Your task to perform on an android device: turn off priority inbox in the gmail app Image 0: 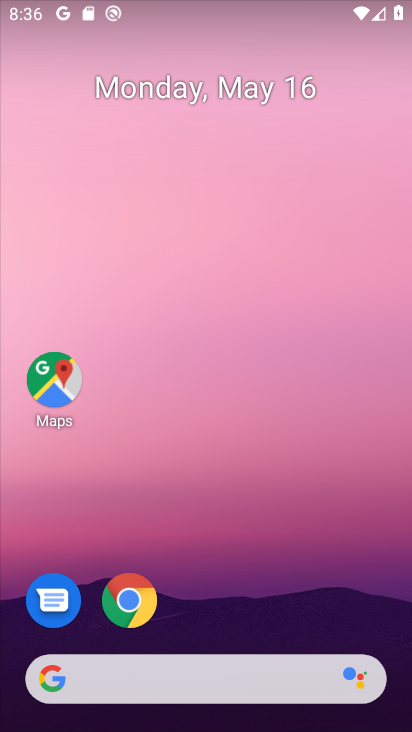
Step 0: drag from (317, 670) to (209, 124)
Your task to perform on an android device: turn off priority inbox in the gmail app Image 1: 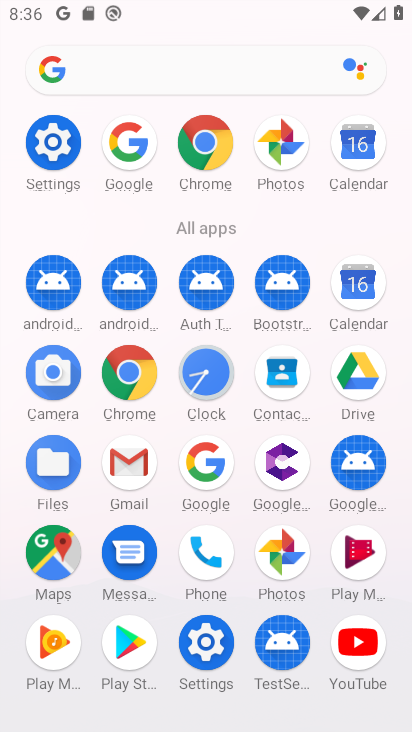
Step 1: click (122, 471)
Your task to perform on an android device: turn off priority inbox in the gmail app Image 2: 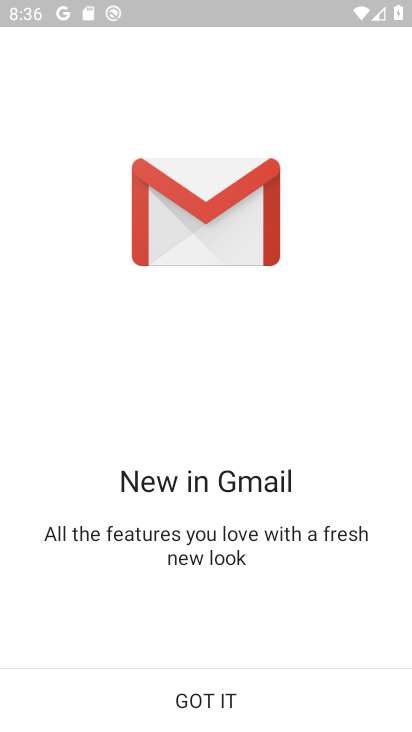
Step 2: click (216, 693)
Your task to perform on an android device: turn off priority inbox in the gmail app Image 3: 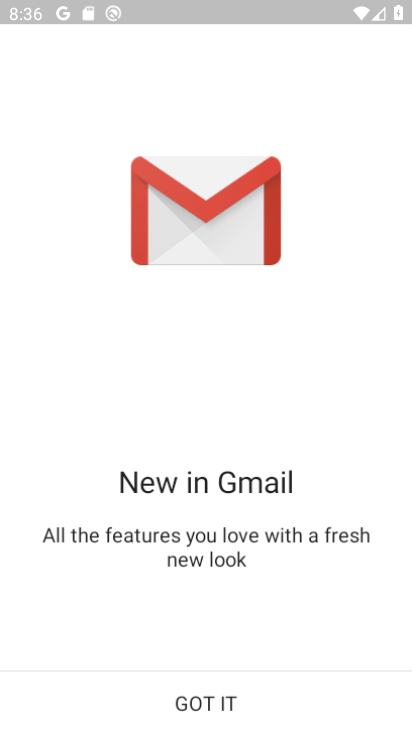
Step 3: click (217, 692)
Your task to perform on an android device: turn off priority inbox in the gmail app Image 4: 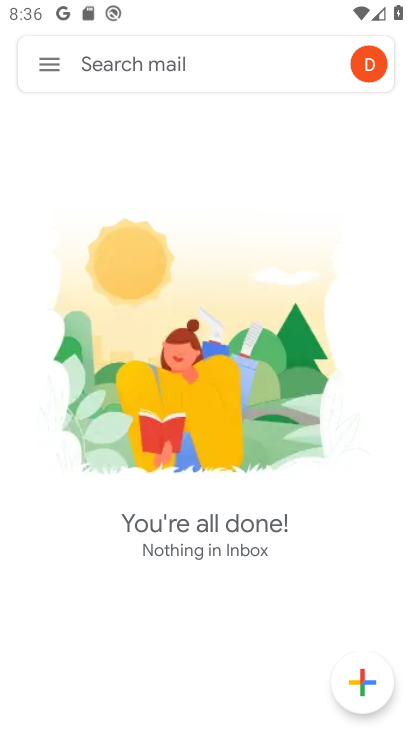
Step 4: press back button
Your task to perform on an android device: turn off priority inbox in the gmail app Image 5: 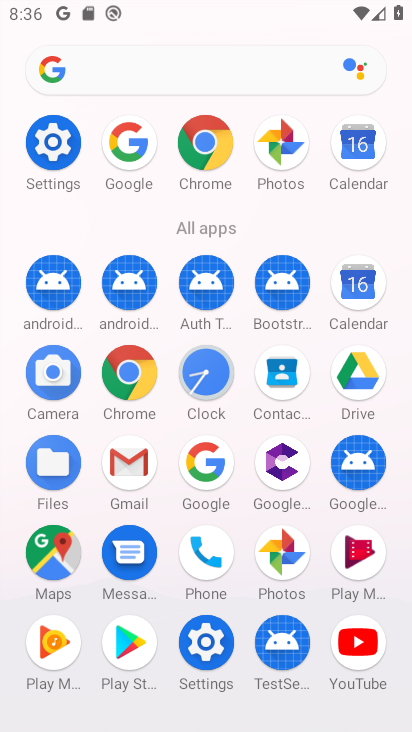
Step 5: click (141, 472)
Your task to perform on an android device: turn off priority inbox in the gmail app Image 6: 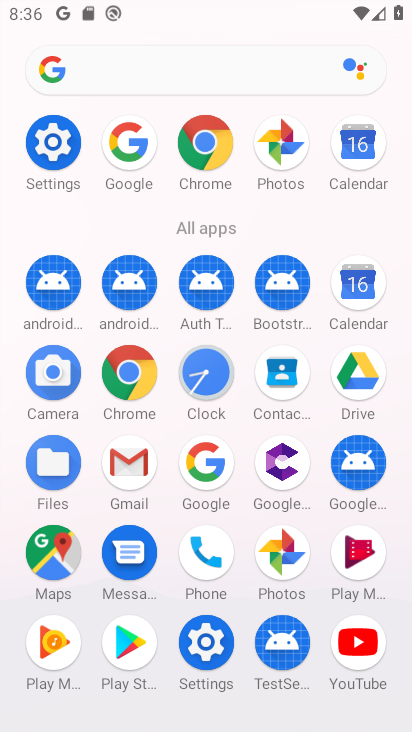
Step 6: click (141, 472)
Your task to perform on an android device: turn off priority inbox in the gmail app Image 7: 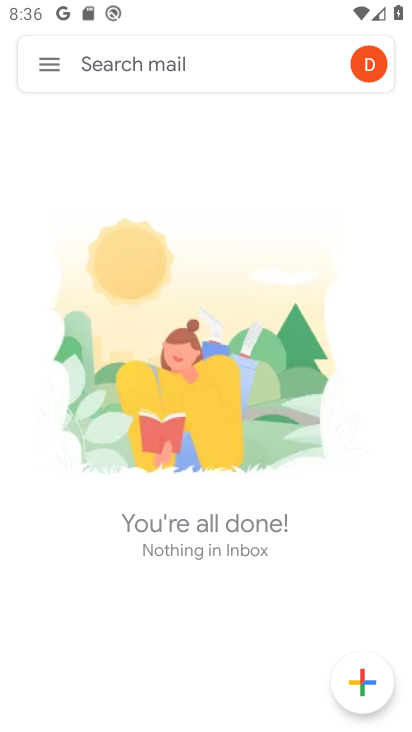
Step 7: click (134, 472)
Your task to perform on an android device: turn off priority inbox in the gmail app Image 8: 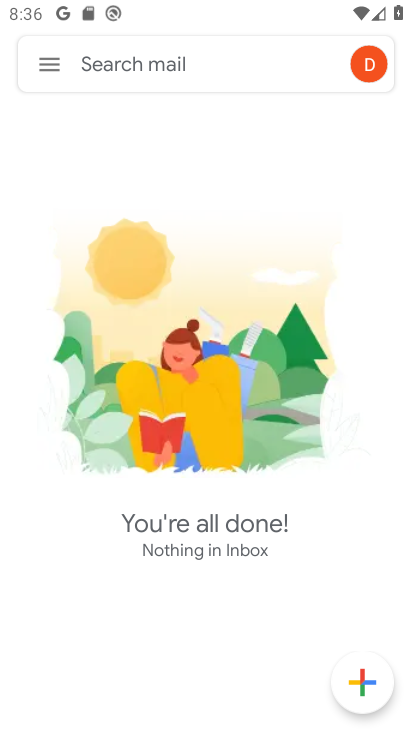
Step 8: click (60, 76)
Your task to perform on an android device: turn off priority inbox in the gmail app Image 9: 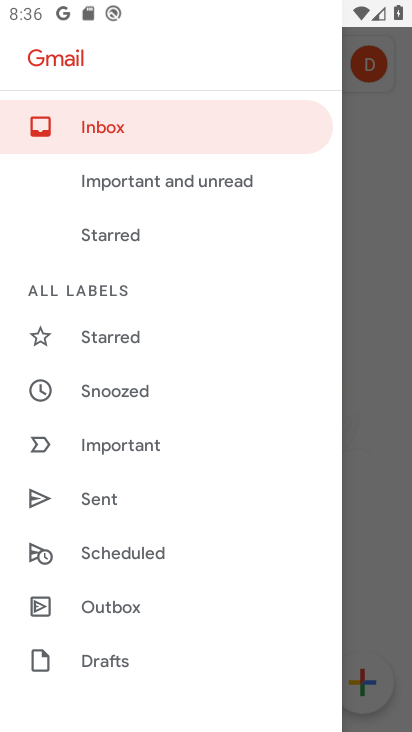
Step 9: drag from (172, 621) to (168, 203)
Your task to perform on an android device: turn off priority inbox in the gmail app Image 10: 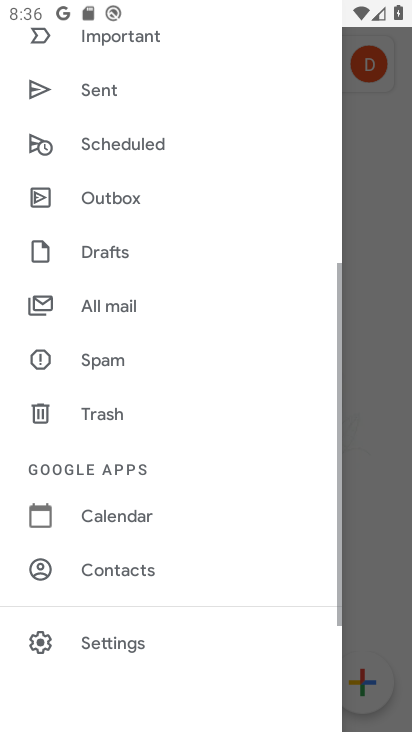
Step 10: drag from (136, 446) to (136, 257)
Your task to perform on an android device: turn off priority inbox in the gmail app Image 11: 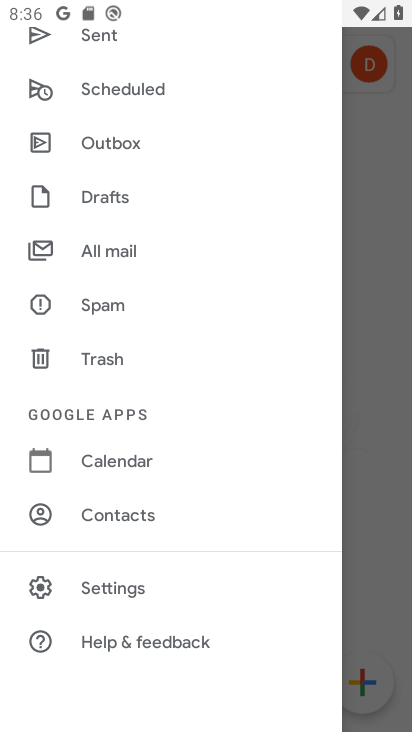
Step 11: click (102, 588)
Your task to perform on an android device: turn off priority inbox in the gmail app Image 12: 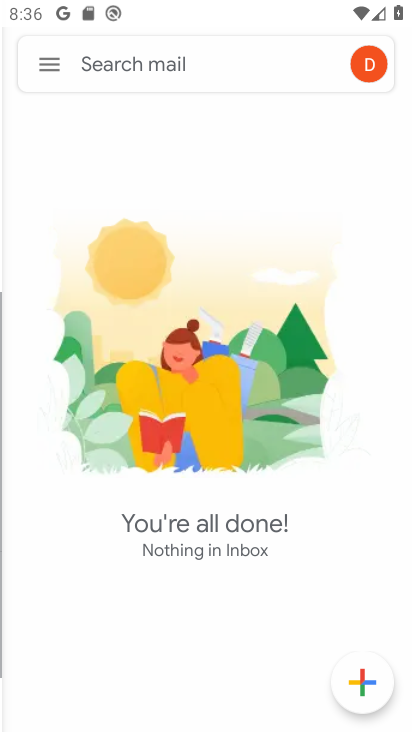
Step 12: click (101, 575)
Your task to perform on an android device: turn off priority inbox in the gmail app Image 13: 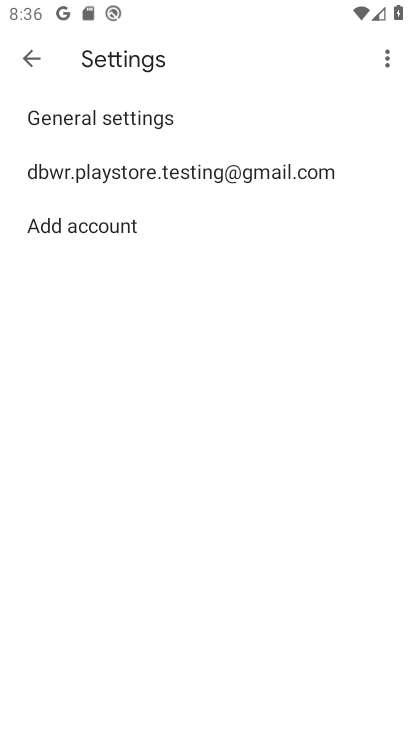
Step 13: click (15, 59)
Your task to perform on an android device: turn off priority inbox in the gmail app Image 14: 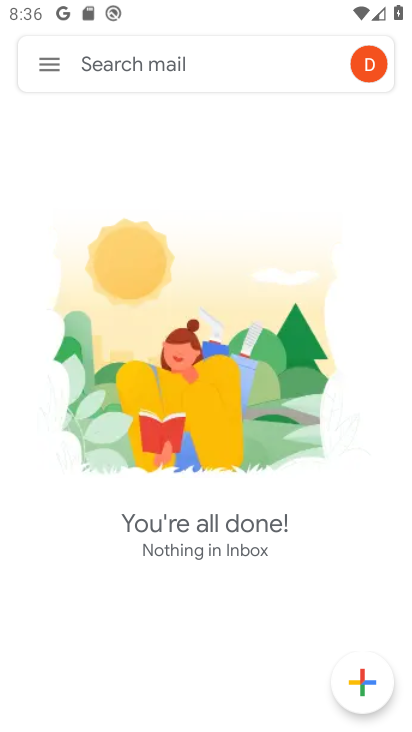
Step 14: click (49, 63)
Your task to perform on an android device: turn off priority inbox in the gmail app Image 15: 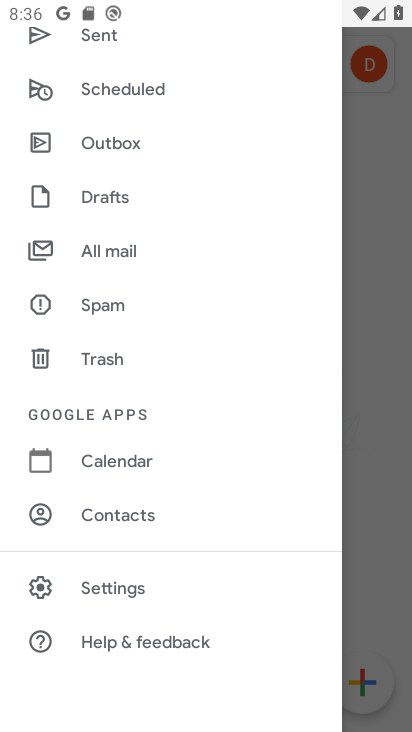
Step 15: click (112, 578)
Your task to perform on an android device: turn off priority inbox in the gmail app Image 16: 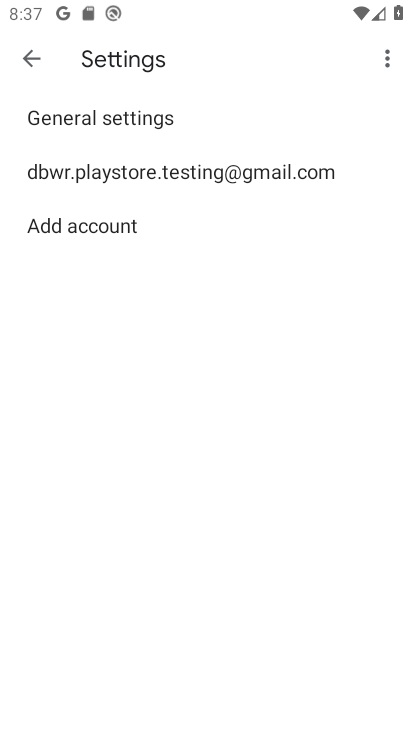
Step 16: click (96, 170)
Your task to perform on an android device: turn off priority inbox in the gmail app Image 17: 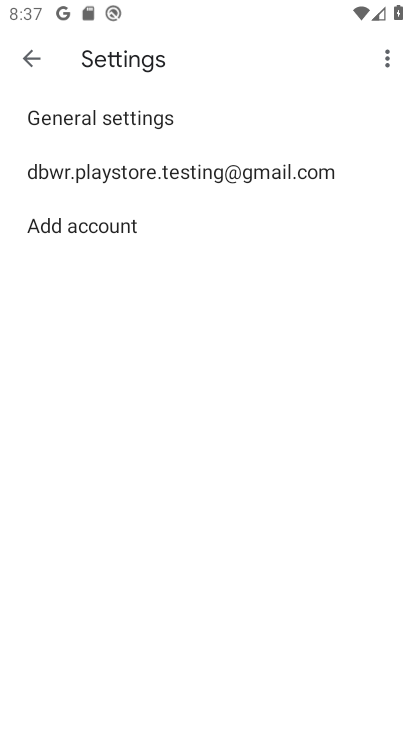
Step 17: click (96, 170)
Your task to perform on an android device: turn off priority inbox in the gmail app Image 18: 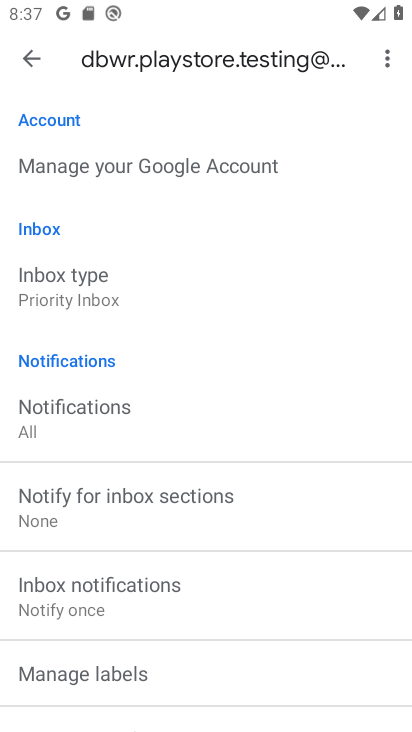
Step 18: click (84, 308)
Your task to perform on an android device: turn off priority inbox in the gmail app Image 19: 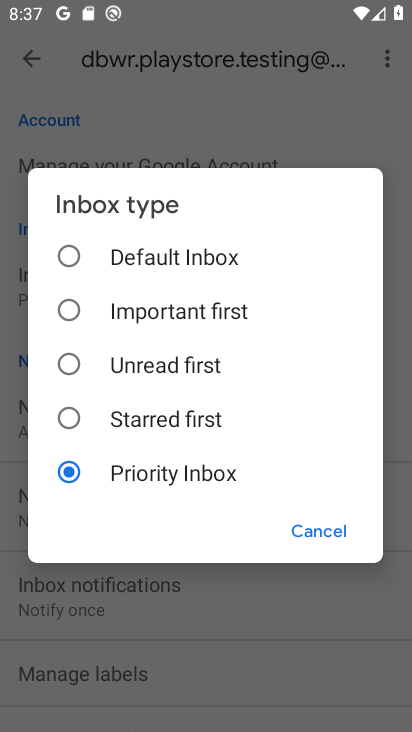
Step 19: click (61, 415)
Your task to perform on an android device: turn off priority inbox in the gmail app Image 20: 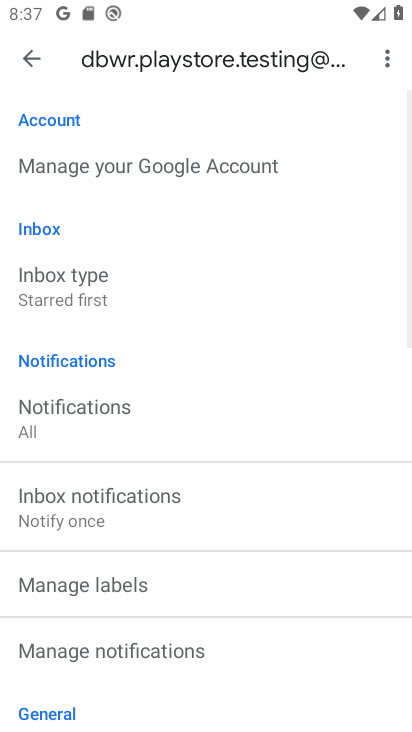
Step 20: task complete